Your task to perform on an android device: check android version Image 0: 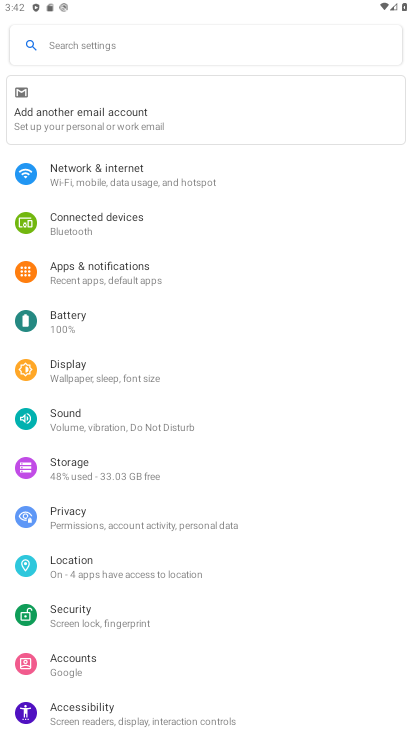
Step 0: drag from (134, 662) to (283, 147)
Your task to perform on an android device: check android version Image 1: 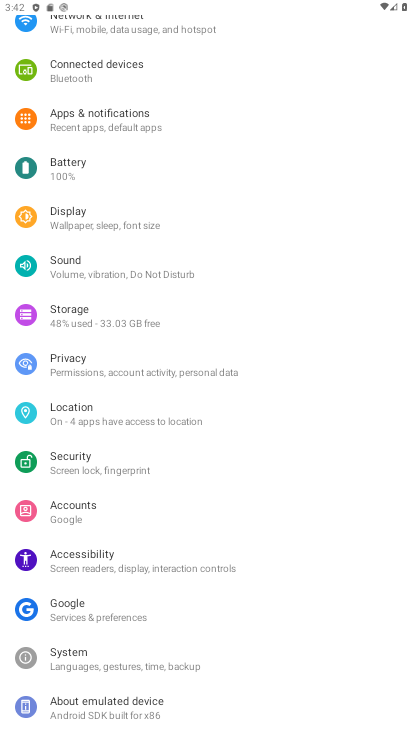
Step 1: click (200, 705)
Your task to perform on an android device: check android version Image 2: 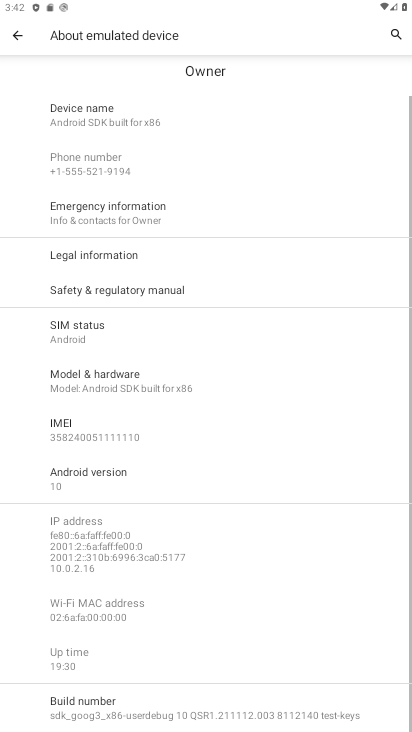
Step 2: click (132, 481)
Your task to perform on an android device: check android version Image 3: 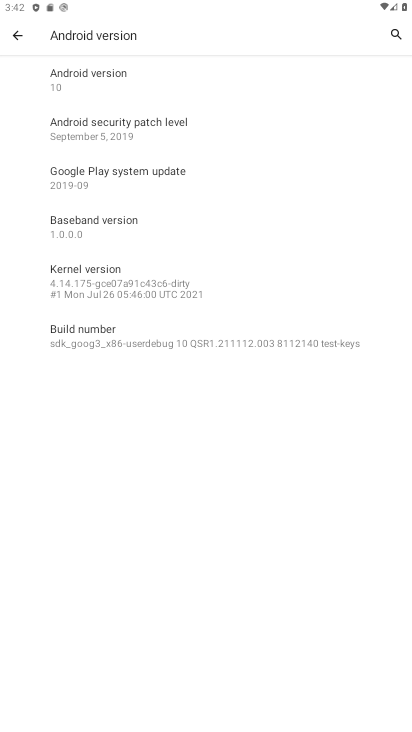
Step 3: task complete